Your task to perform on an android device: open wifi settings Image 0: 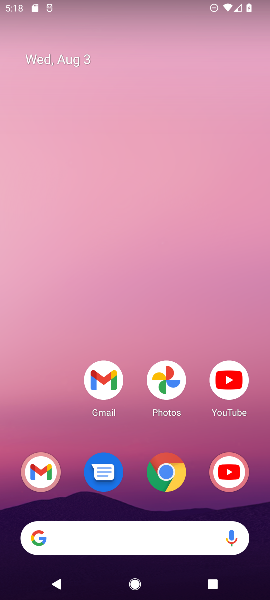
Step 0: drag from (203, 511) to (120, 24)
Your task to perform on an android device: open wifi settings Image 1: 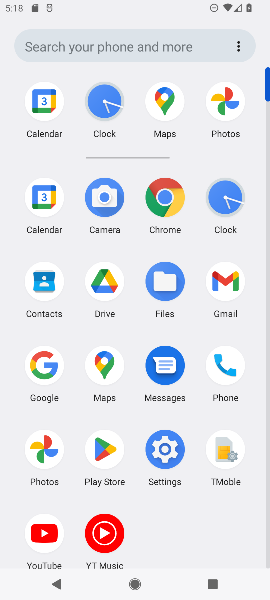
Step 1: click (156, 466)
Your task to perform on an android device: open wifi settings Image 2: 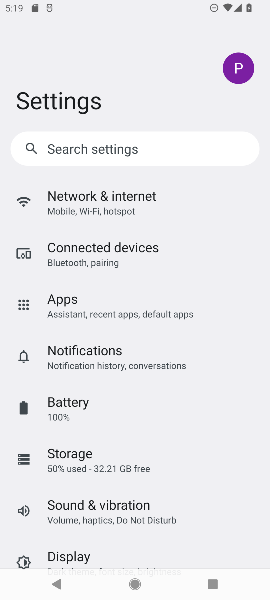
Step 2: click (131, 210)
Your task to perform on an android device: open wifi settings Image 3: 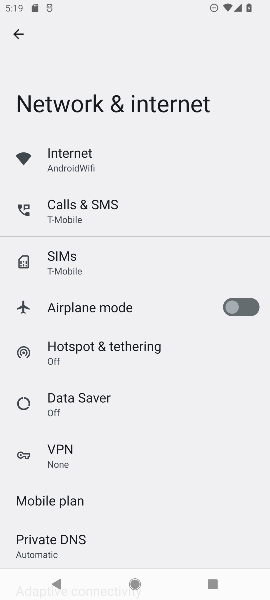
Step 3: task complete